Your task to perform on an android device: toggle translation in the chrome app Image 0: 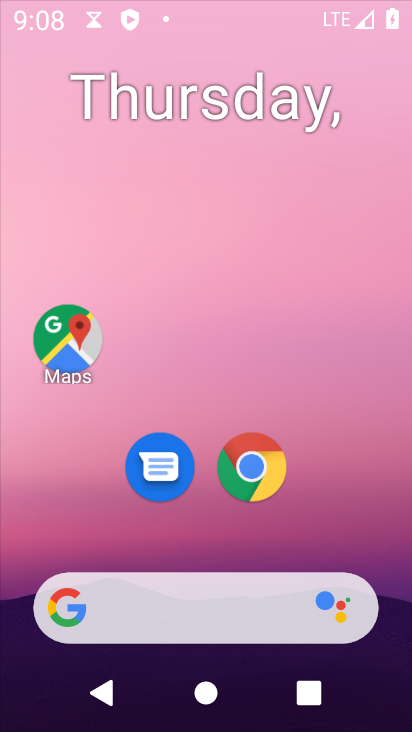
Step 0: press home button
Your task to perform on an android device: toggle translation in the chrome app Image 1: 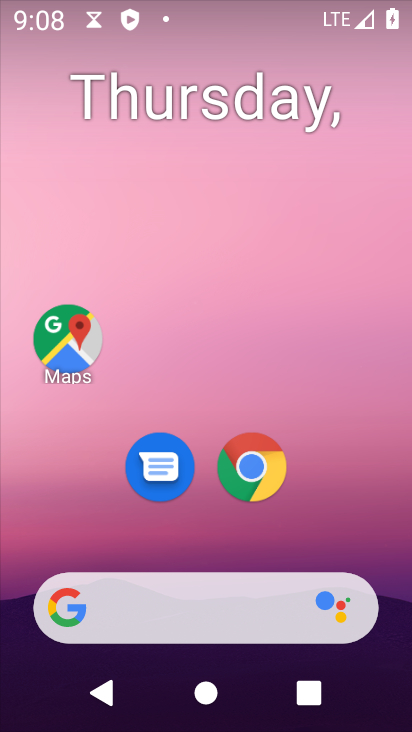
Step 1: drag from (331, 520) to (338, 71)
Your task to perform on an android device: toggle translation in the chrome app Image 2: 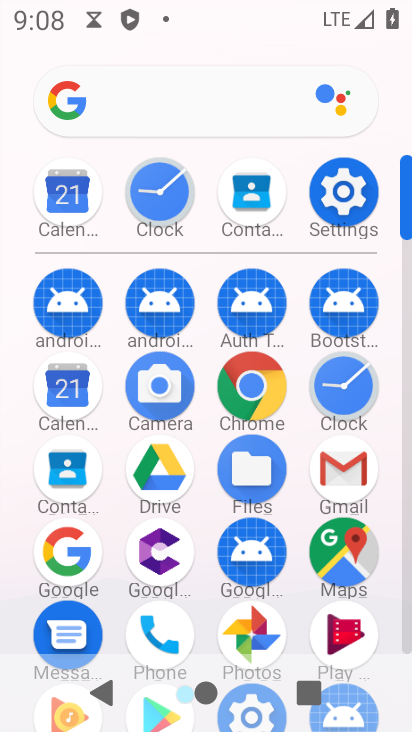
Step 2: click (252, 396)
Your task to perform on an android device: toggle translation in the chrome app Image 3: 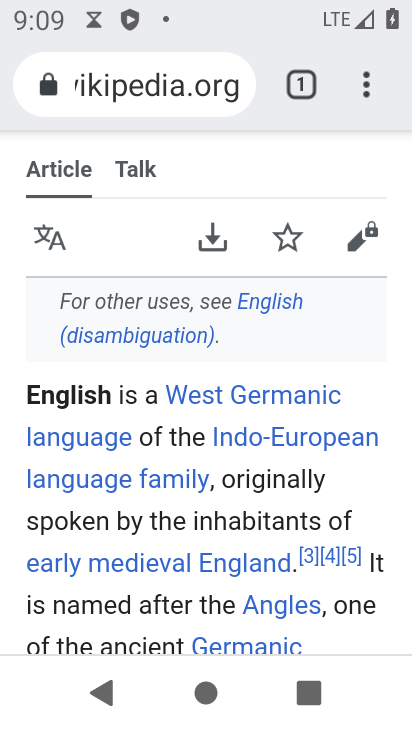
Step 3: click (358, 84)
Your task to perform on an android device: toggle translation in the chrome app Image 4: 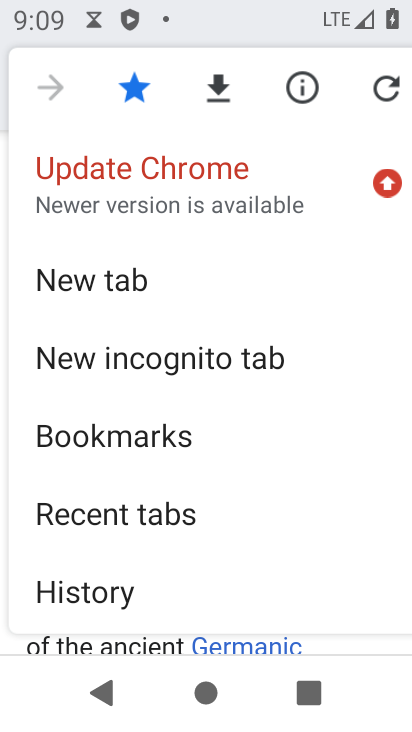
Step 4: drag from (195, 519) to (229, 173)
Your task to perform on an android device: toggle translation in the chrome app Image 5: 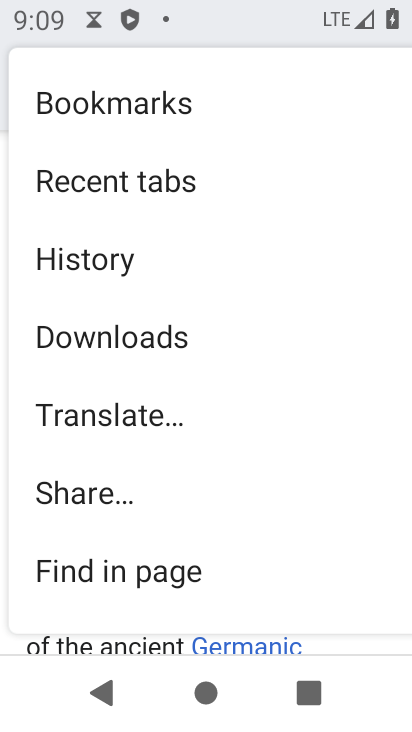
Step 5: drag from (164, 562) to (176, 211)
Your task to perform on an android device: toggle translation in the chrome app Image 6: 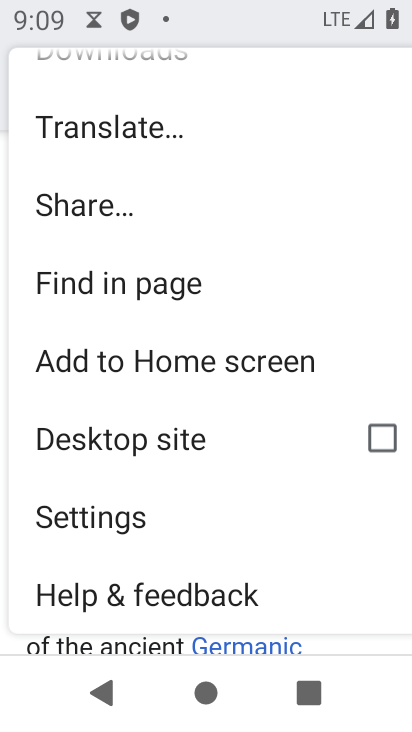
Step 6: click (173, 515)
Your task to perform on an android device: toggle translation in the chrome app Image 7: 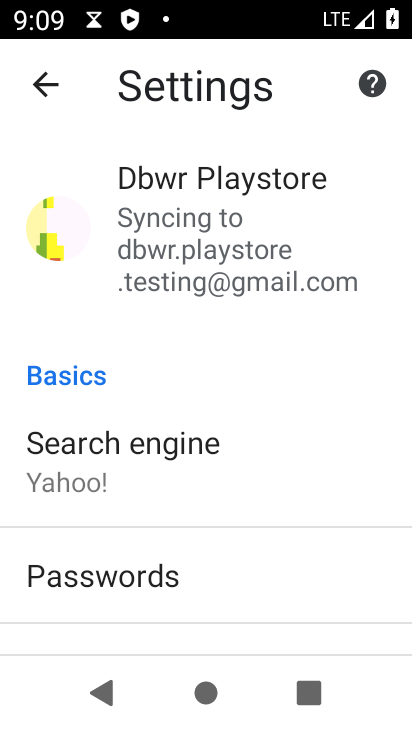
Step 7: drag from (179, 545) to (208, 393)
Your task to perform on an android device: toggle translation in the chrome app Image 8: 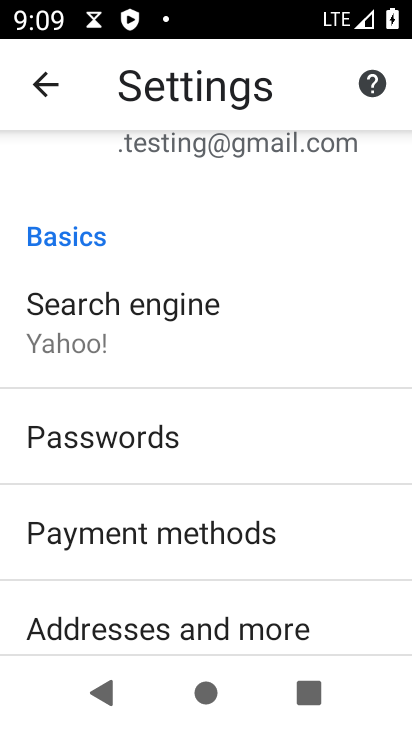
Step 8: drag from (250, 600) to (275, 378)
Your task to perform on an android device: toggle translation in the chrome app Image 9: 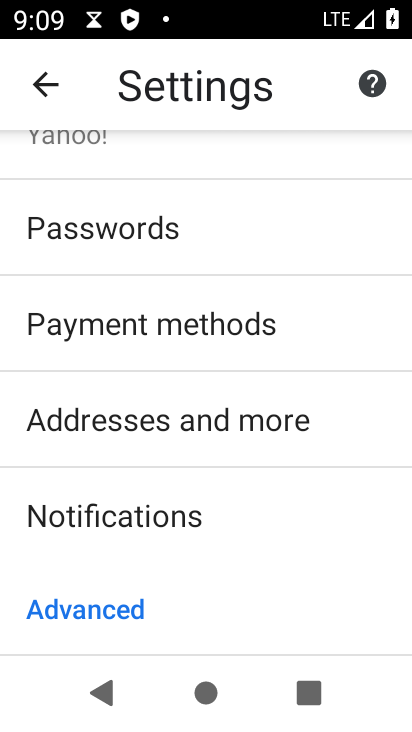
Step 9: drag from (228, 585) to (238, 363)
Your task to perform on an android device: toggle translation in the chrome app Image 10: 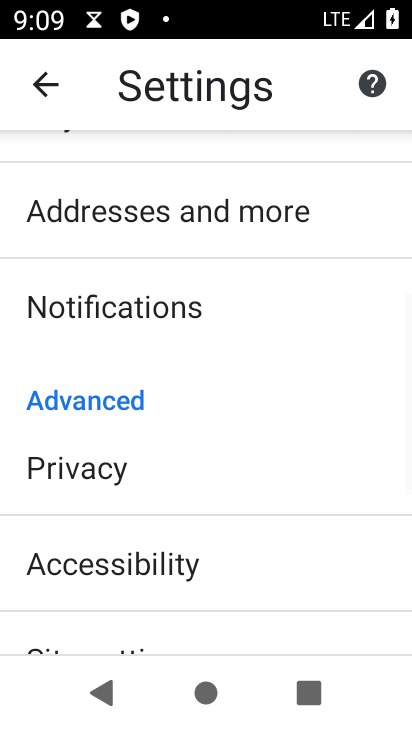
Step 10: drag from (183, 581) to (209, 399)
Your task to perform on an android device: toggle translation in the chrome app Image 11: 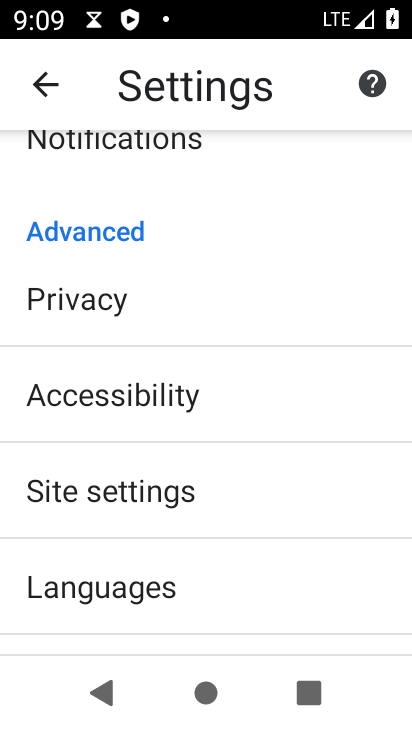
Step 11: click (152, 576)
Your task to perform on an android device: toggle translation in the chrome app Image 12: 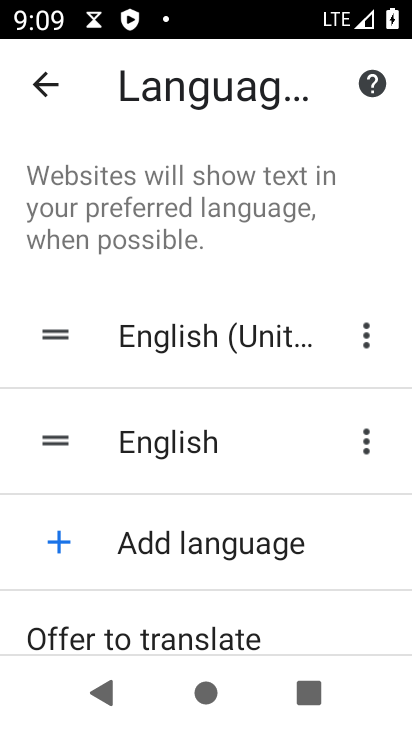
Step 12: drag from (163, 602) to (173, 477)
Your task to perform on an android device: toggle translation in the chrome app Image 13: 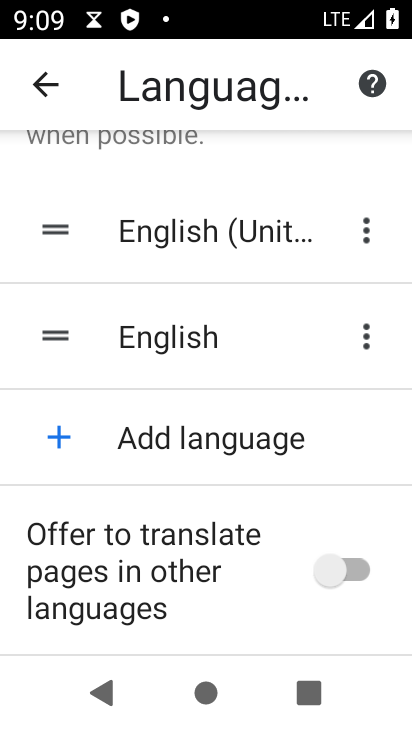
Step 13: click (321, 572)
Your task to perform on an android device: toggle translation in the chrome app Image 14: 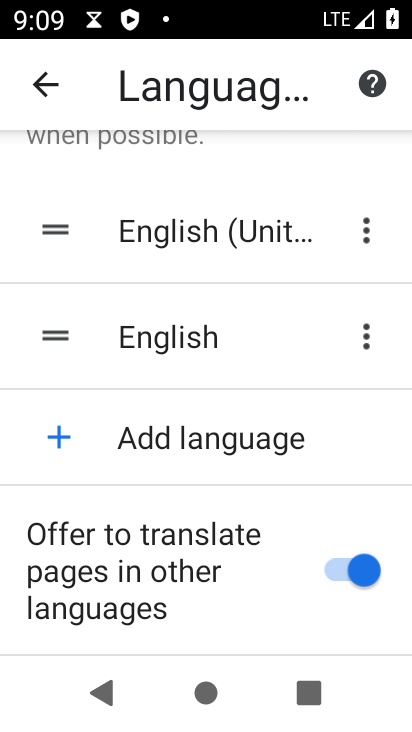
Step 14: task complete